Your task to perform on an android device: Go to network settings Image 0: 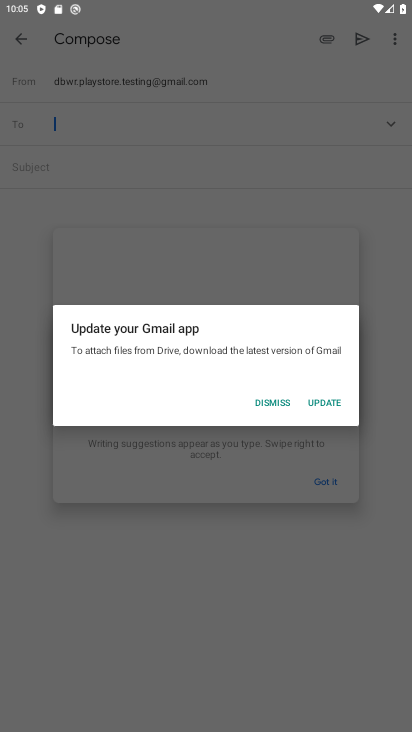
Step 0: press home button
Your task to perform on an android device: Go to network settings Image 1: 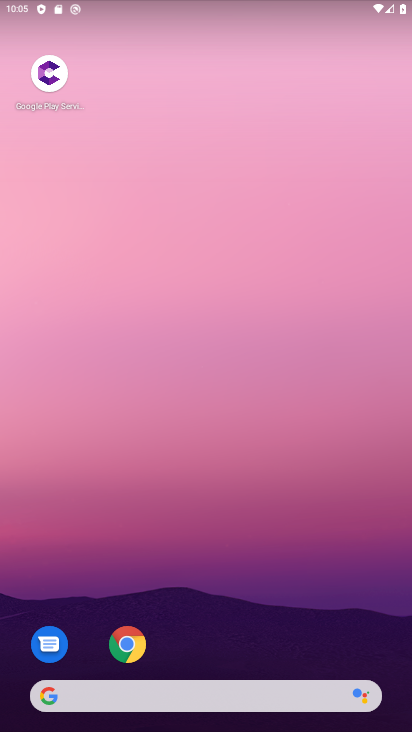
Step 1: drag from (196, 616) to (228, 59)
Your task to perform on an android device: Go to network settings Image 2: 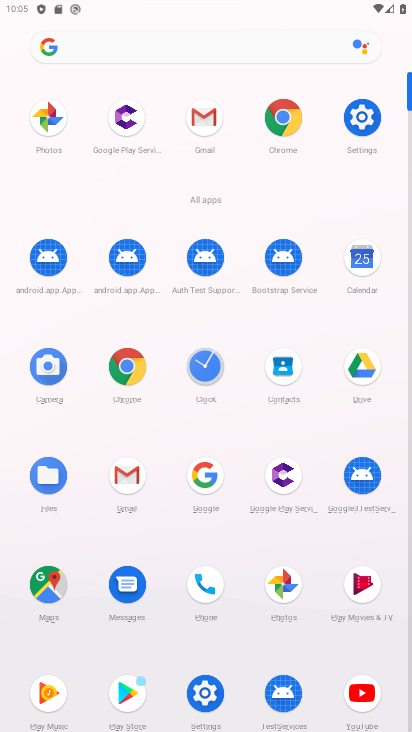
Step 2: click (360, 113)
Your task to perform on an android device: Go to network settings Image 3: 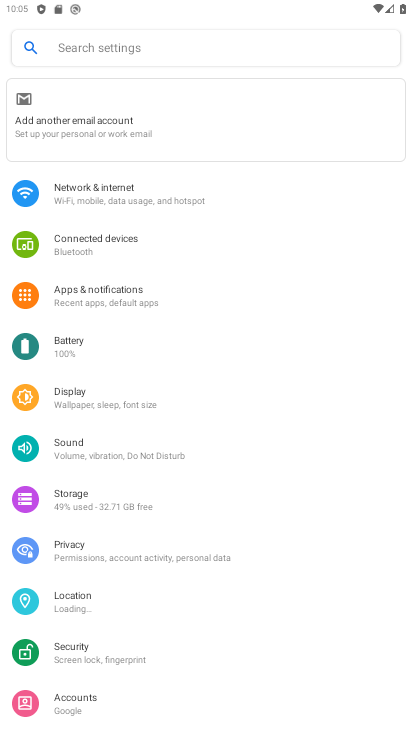
Step 3: click (100, 197)
Your task to perform on an android device: Go to network settings Image 4: 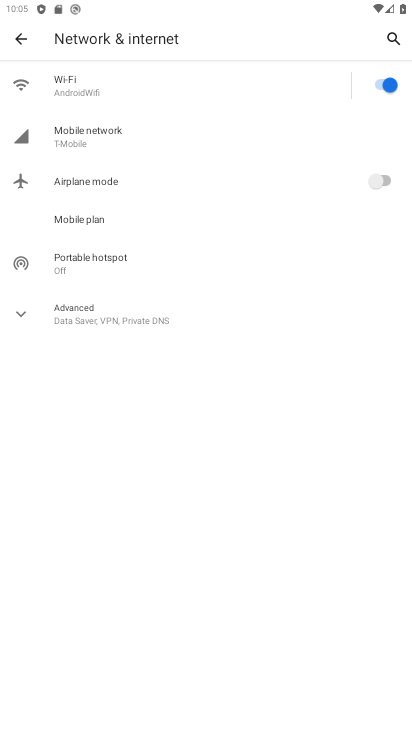
Step 4: click (84, 141)
Your task to perform on an android device: Go to network settings Image 5: 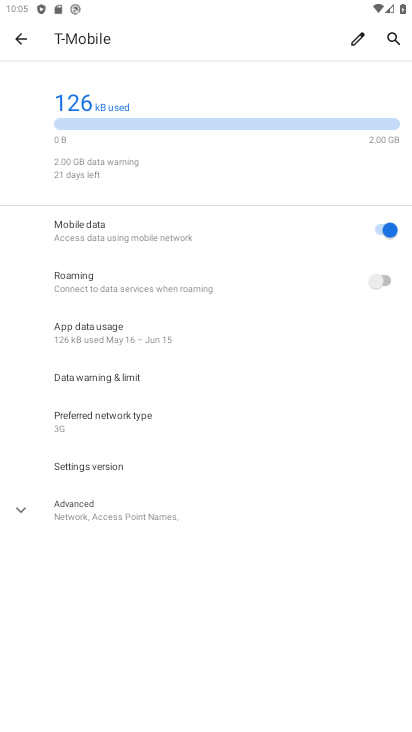
Step 5: task complete